Your task to perform on an android device: Open settings on Google Maps Image 0: 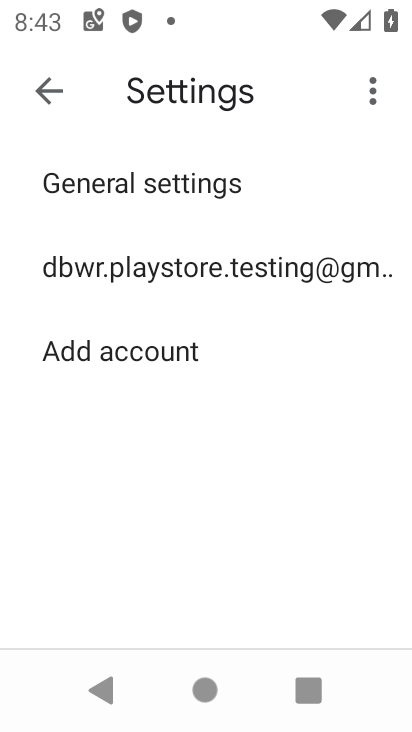
Step 0: press home button
Your task to perform on an android device: Open settings on Google Maps Image 1: 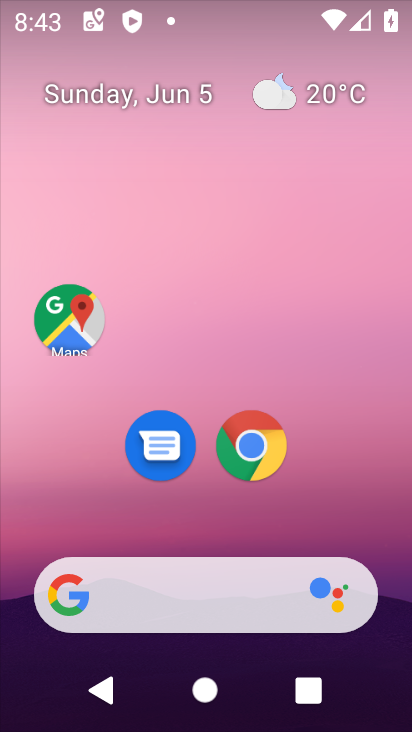
Step 1: drag from (330, 517) to (330, 3)
Your task to perform on an android device: Open settings on Google Maps Image 2: 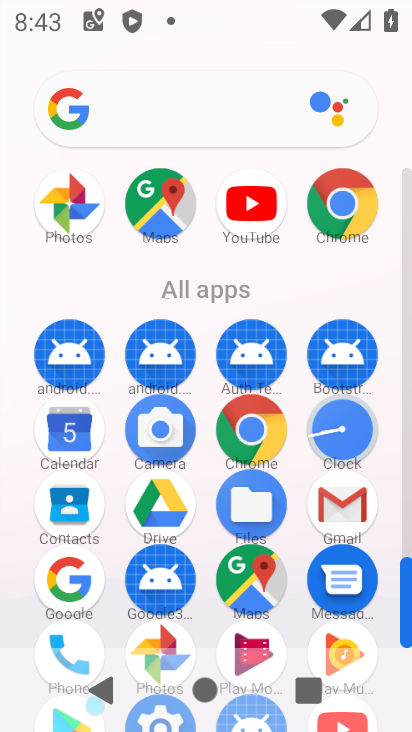
Step 2: click (280, 589)
Your task to perform on an android device: Open settings on Google Maps Image 3: 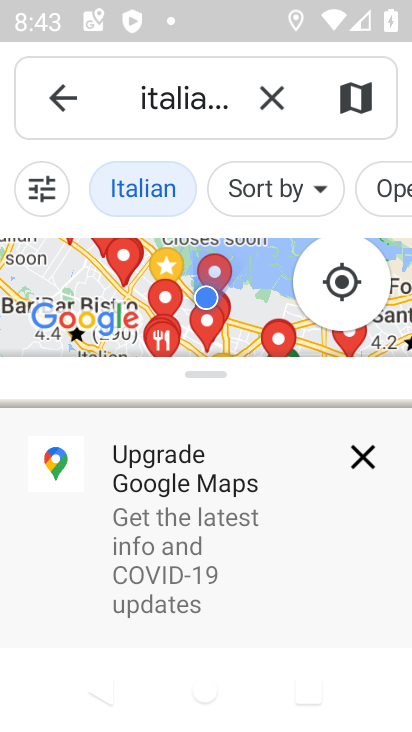
Step 3: press back button
Your task to perform on an android device: Open settings on Google Maps Image 4: 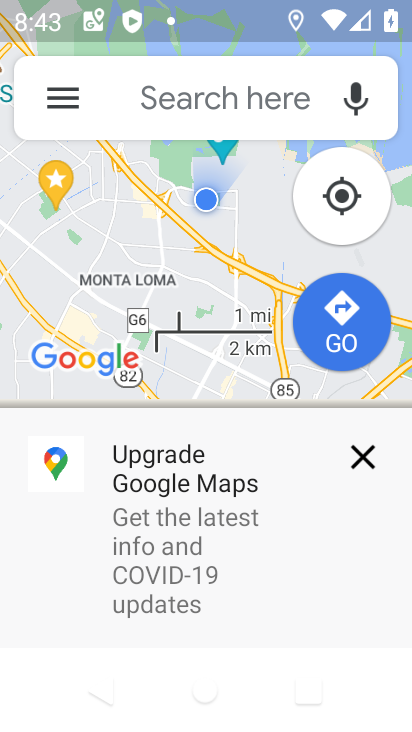
Step 4: click (56, 92)
Your task to perform on an android device: Open settings on Google Maps Image 5: 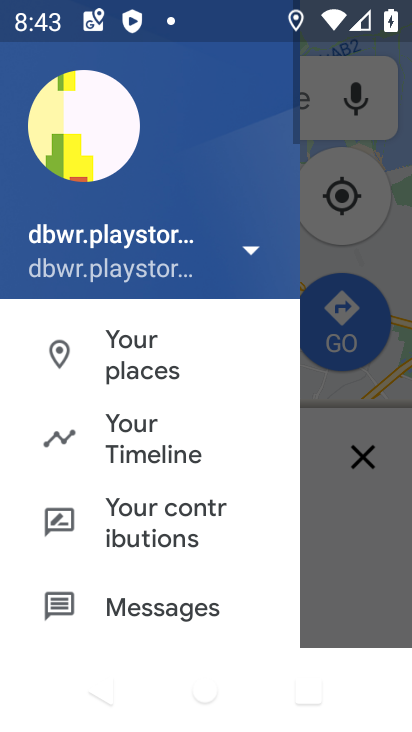
Step 5: drag from (226, 566) to (239, 217)
Your task to perform on an android device: Open settings on Google Maps Image 6: 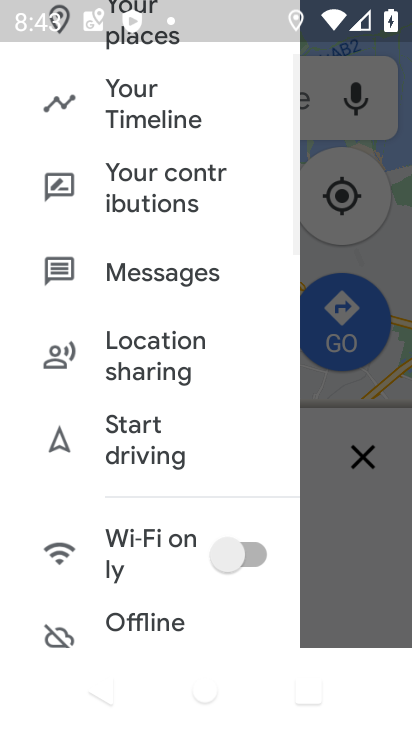
Step 6: drag from (157, 647) to (158, 596)
Your task to perform on an android device: Open settings on Google Maps Image 7: 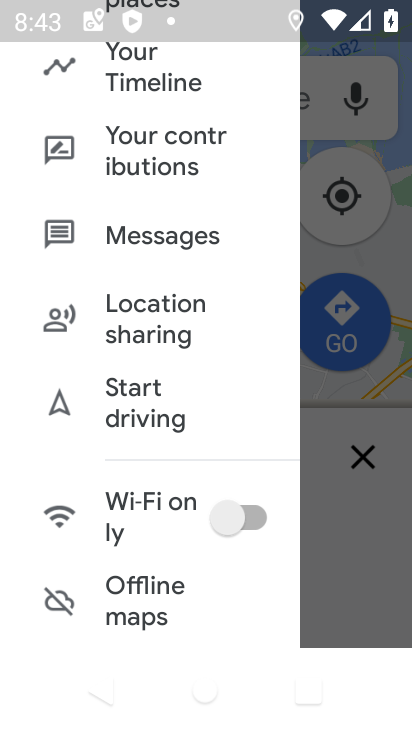
Step 7: click (202, 76)
Your task to perform on an android device: Open settings on Google Maps Image 8: 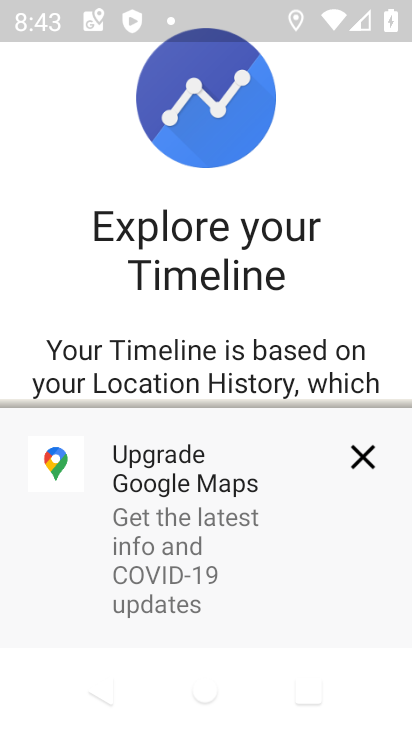
Step 8: click (355, 452)
Your task to perform on an android device: Open settings on Google Maps Image 9: 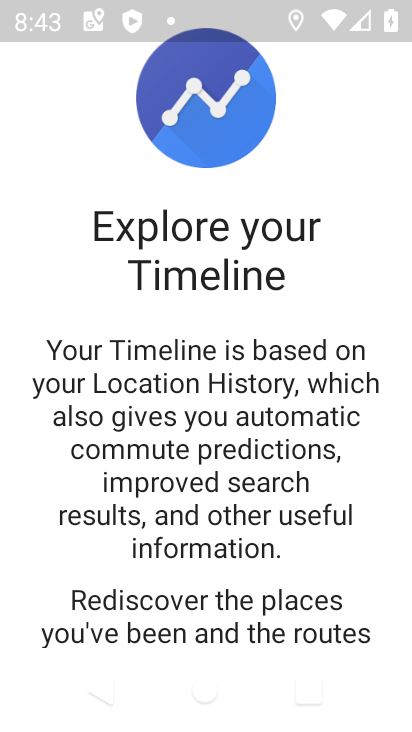
Step 9: drag from (284, 626) to (268, 155)
Your task to perform on an android device: Open settings on Google Maps Image 10: 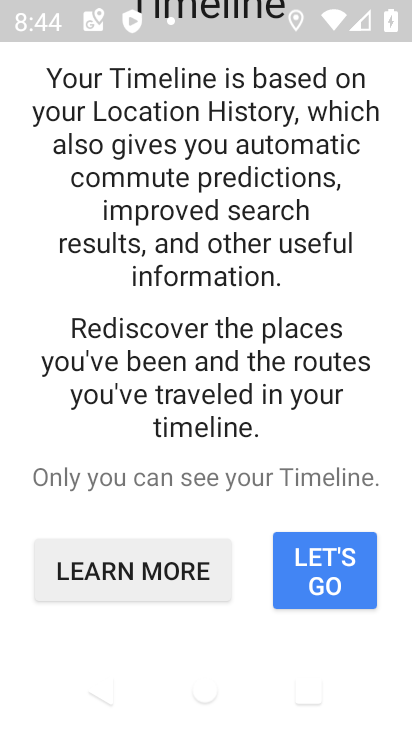
Step 10: click (340, 581)
Your task to perform on an android device: Open settings on Google Maps Image 11: 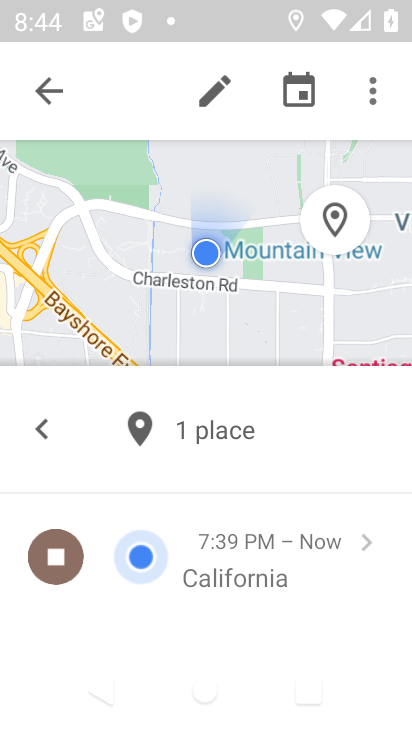
Step 11: task complete